Your task to perform on an android device: clear all cookies in the chrome app Image 0: 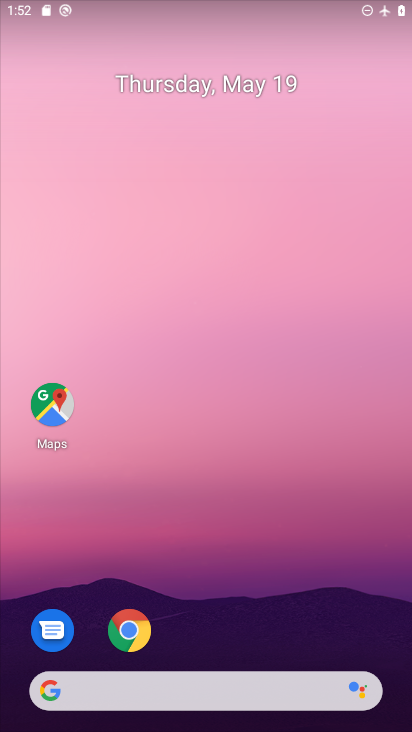
Step 0: click (147, 651)
Your task to perform on an android device: clear all cookies in the chrome app Image 1: 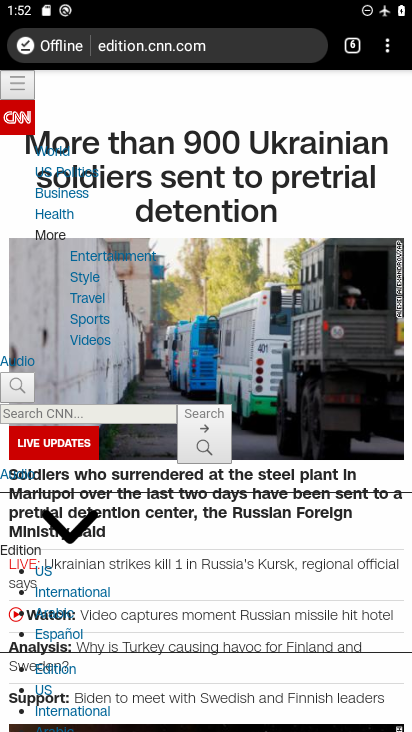
Step 1: drag from (390, 48) to (223, 497)
Your task to perform on an android device: clear all cookies in the chrome app Image 2: 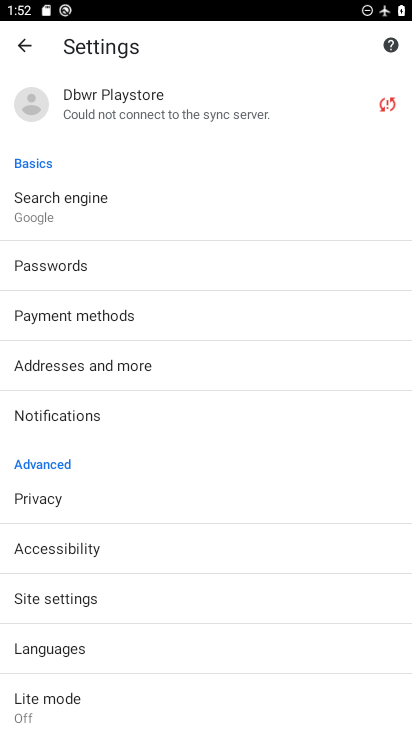
Step 2: click (50, 502)
Your task to perform on an android device: clear all cookies in the chrome app Image 3: 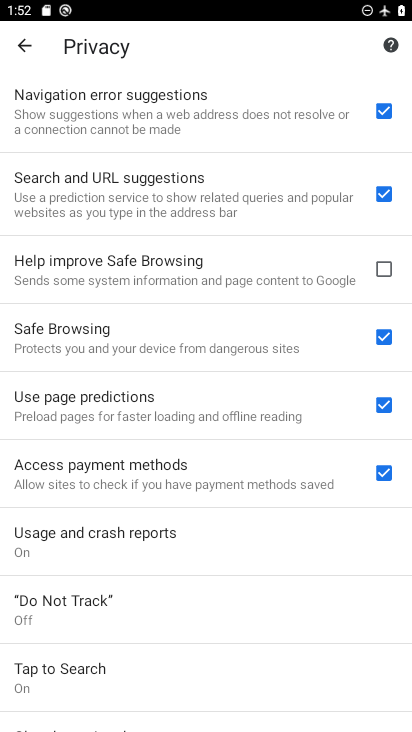
Step 3: drag from (138, 605) to (120, 95)
Your task to perform on an android device: clear all cookies in the chrome app Image 4: 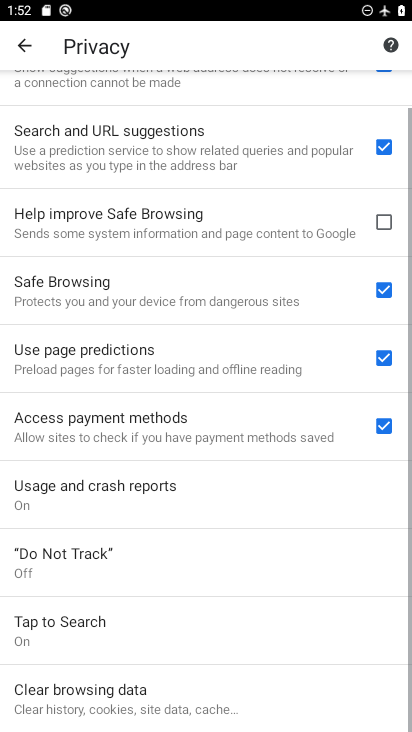
Step 4: click (131, 708)
Your task to perform on an android device: clear all cookies in the chrome app Image 5: 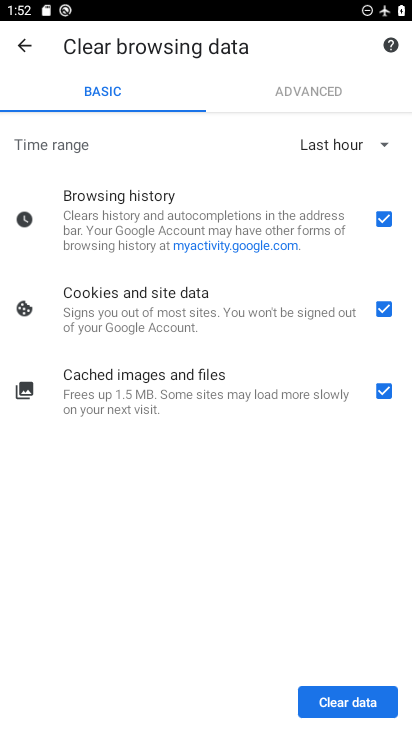
Step 5: click (338, 711)
Your task to perform on an android device: clear all cookies in the chrome app Image 6: 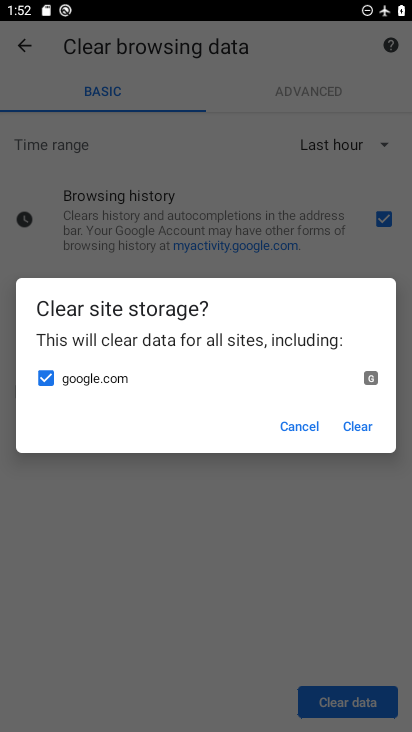
Step 6: click (365, 432)
Your task to perform on an android device: clear all cookies in the chrome app Image 7: 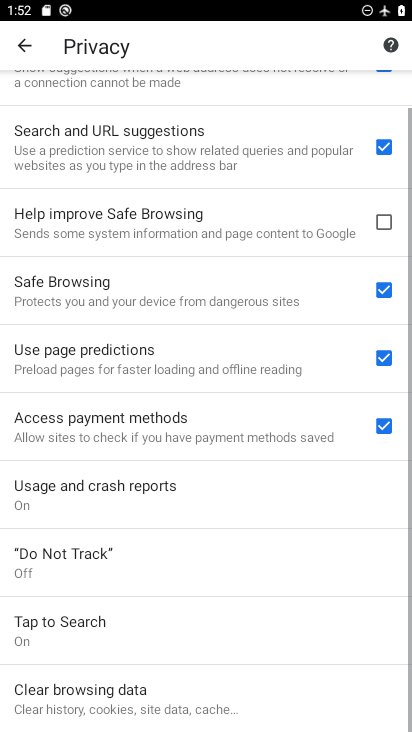
Step 7: task complete